Your task to perform on an android device: choose inbox layout in the gmail app Image 0: 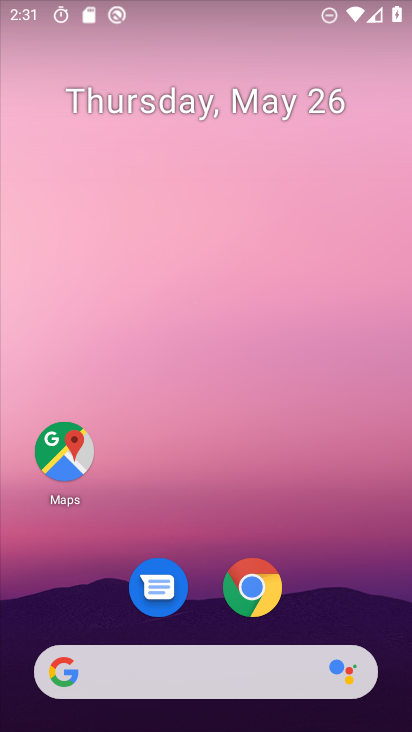
Step 0: drag from (307, 449) to (302, 167)
Your task to perform on an android device: choose inbox layout in the gmail app Image 1: 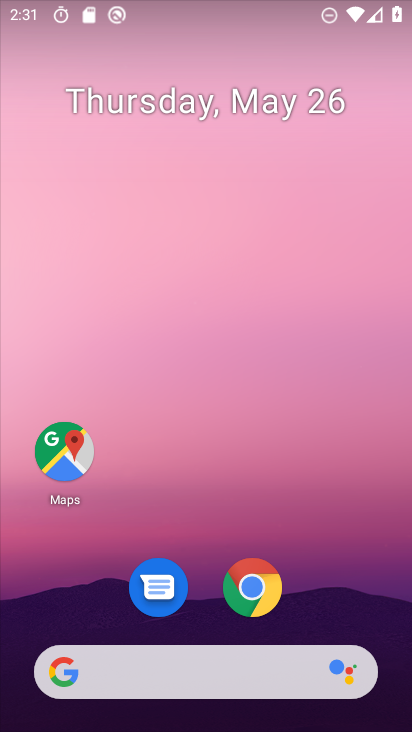
Step 1: drag from (325, 507) to (336, 104)
Your task to perform on an android device: choose inbox layout in the gmail app Image 2: 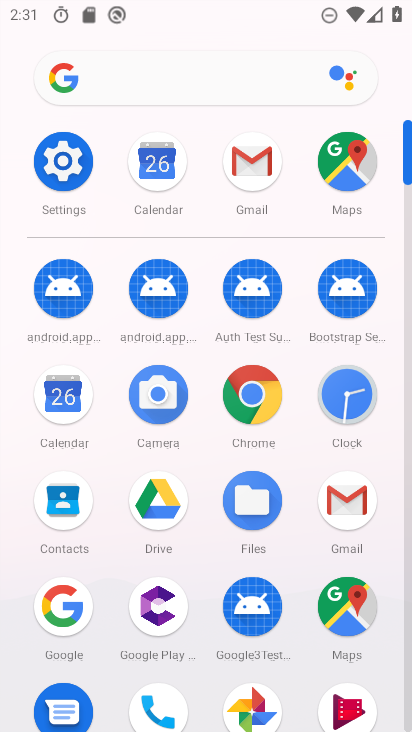
Step 2: click (262, 165)
Your task to perform on an android device: choose inbox layout in the gmail app Image 3: 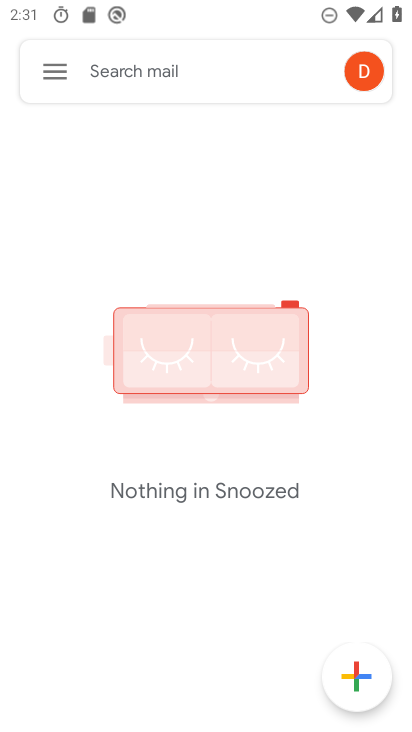
Step 3: click (40, 77)
Your task to perform on an android device: choose inbox layout in the gmail app Image 4: 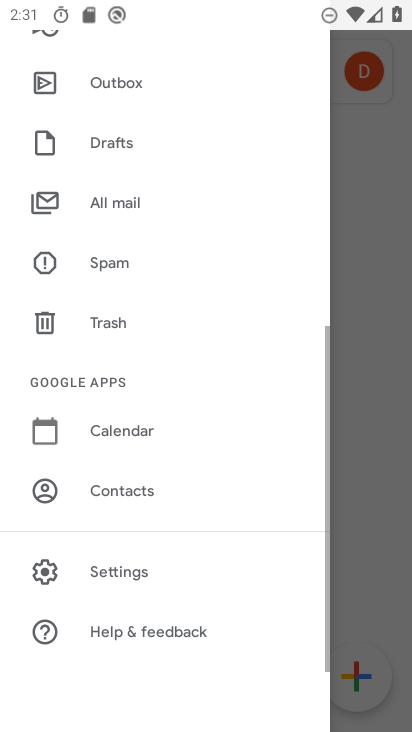
Step 4: click (119, 578)
Your task to perform on an android device: choose inbox layout in the gmail app Image 5: 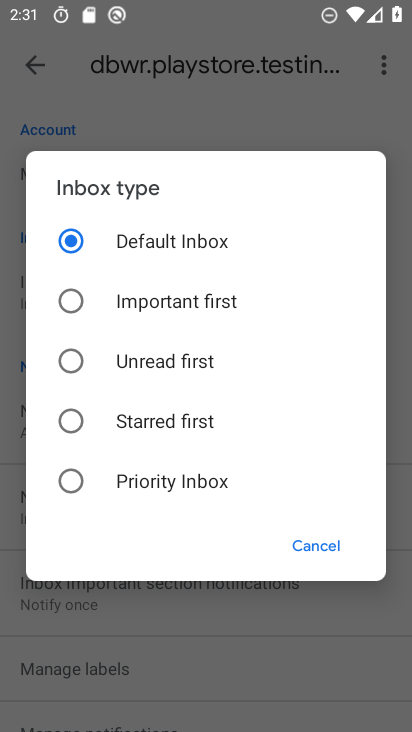
Step 5: click (311, 539)
Your task to perform on an android device: choose inbox layout in the gmail app Image 6: 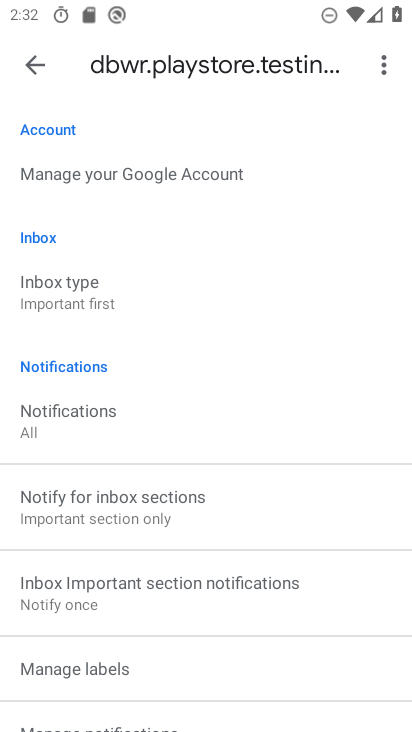
Step 6: click (169, 564)
Your task to perform on an android device: choose inbox layout in the gmail app Image 7: 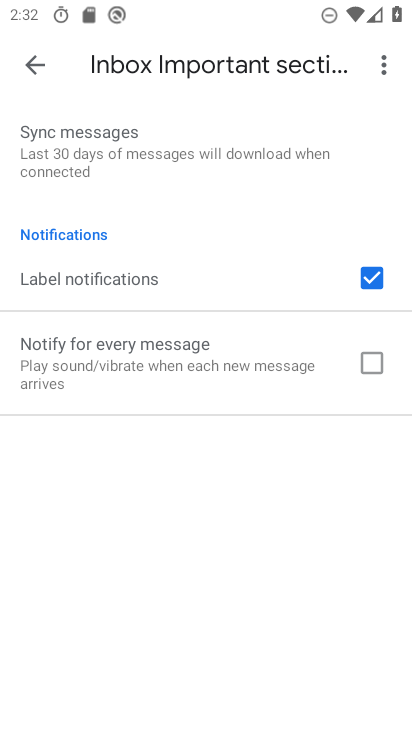
Step 7: click (30, 66)
Your task to perform on an android device: choose inbox layout in the gmail app Image 8: 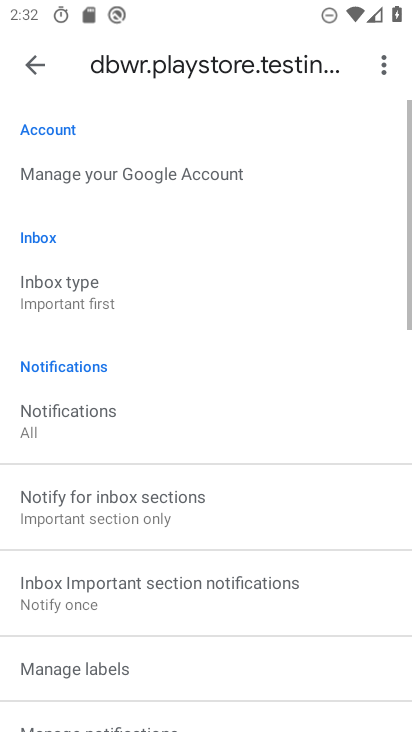
Step 8: click (78, 283)
Your task to perform on an android device: choose inbox layout in the gmail app Image 9: 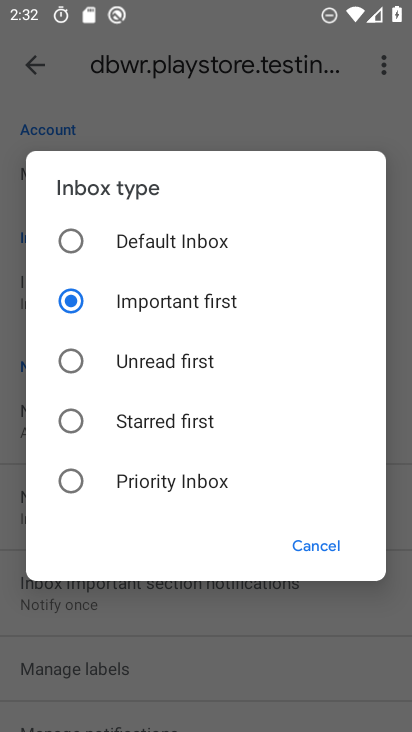
Step 9: task complete